Your task to perform on an android device: open app "DuckDuckGo Privacy Browser" (install if not already installed) and go to login screen Image 0: 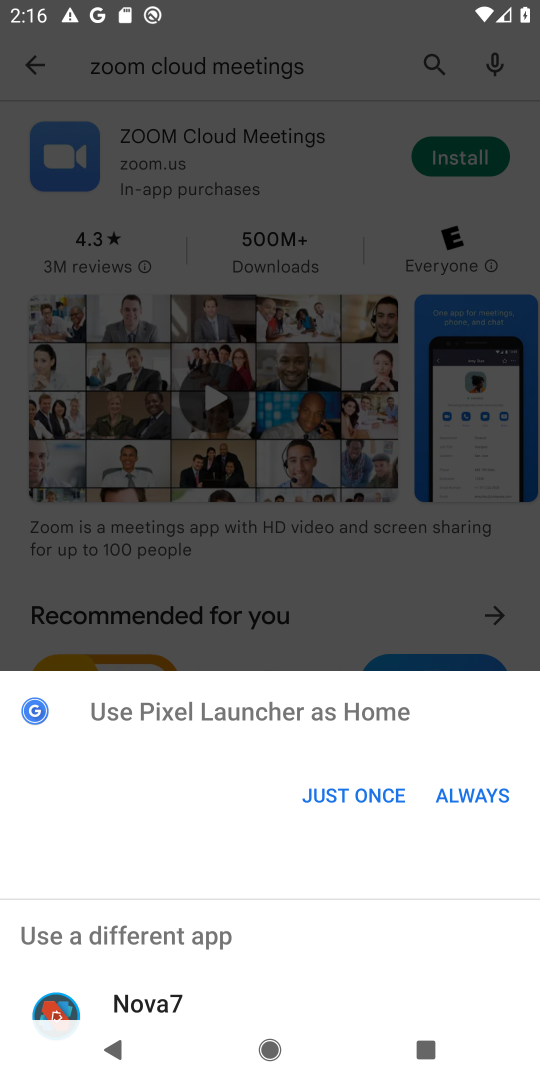
Step 0: press home button
Your task to perform on an android device: open app "DuckDuckGo Privacy Browser" (install if not already installed) and go to login screen Image 1: 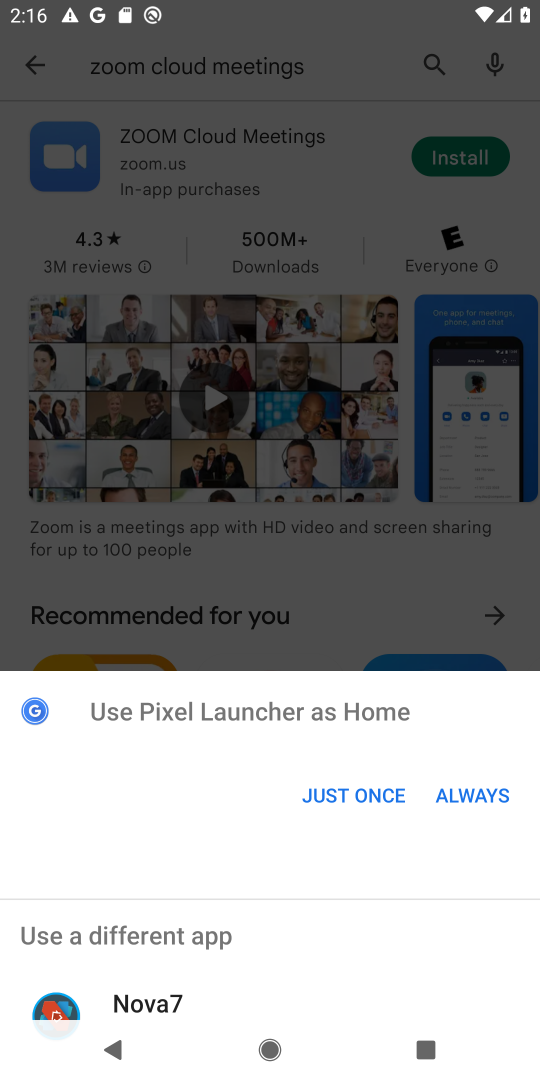
Step 1: click (323, 782)
Your task to perform on an android device: open app "DuckDuckGo Privacy Browser" (install if not already installed) and go to login screen Image 2: 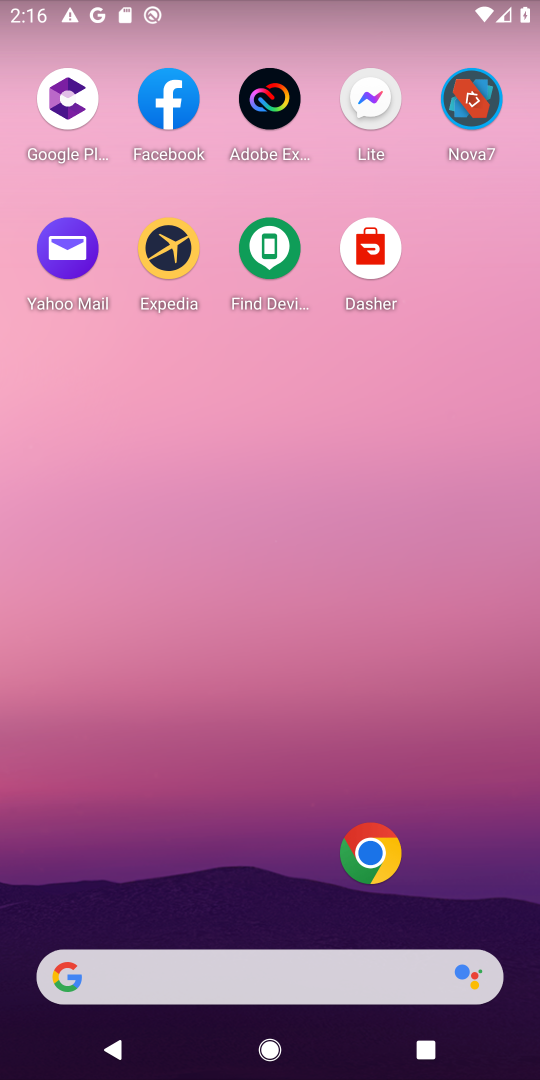
Step 2: drag from (507, 817) to (467, 183)
Your task to perform on an android device: open app "DuckDuckGo Privacy Browser" (install if not already installed) and go to login screen Image 3: 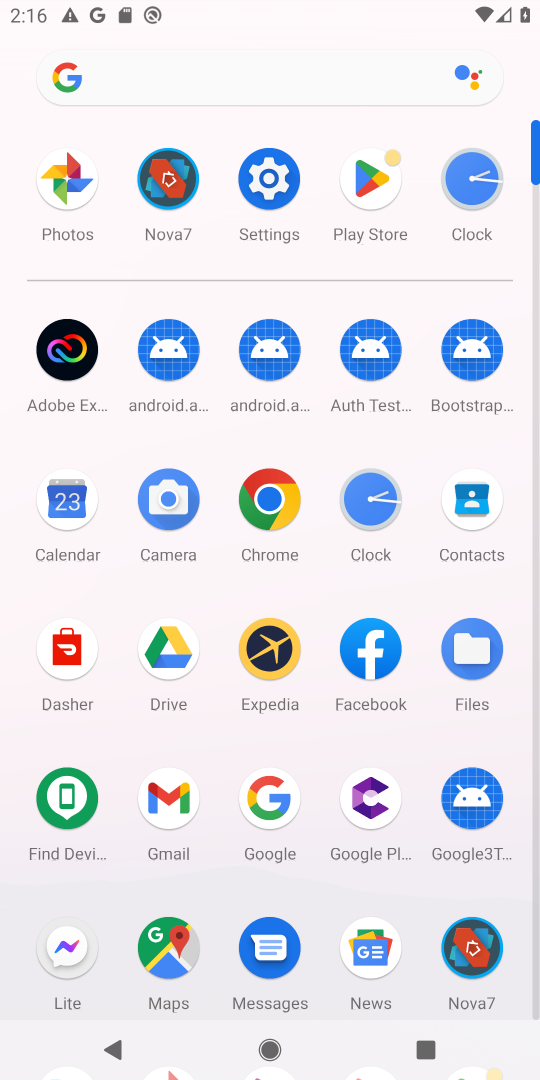
Step 3: click (538, 991)
Your task to perform on an android device: open app "DuckDuckGo Privacy Browser" (install if not already installed) and go to login screen Image 4: 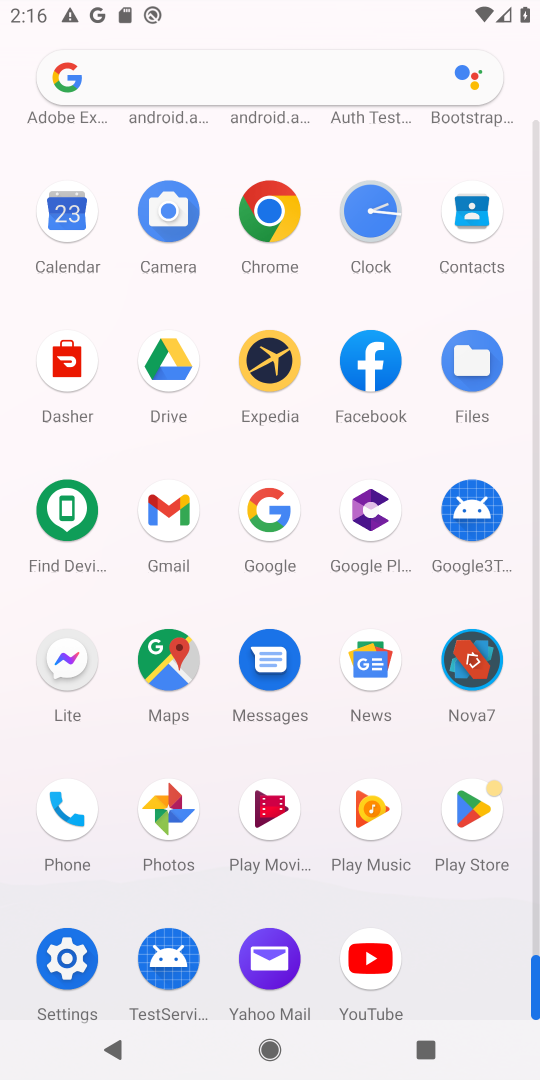
Step 4: click (477, 810)
Your task to perform on an android device: open app "DuckDuckGo Privacy Browser" (install if not already installed) and go to login screen Image 5: 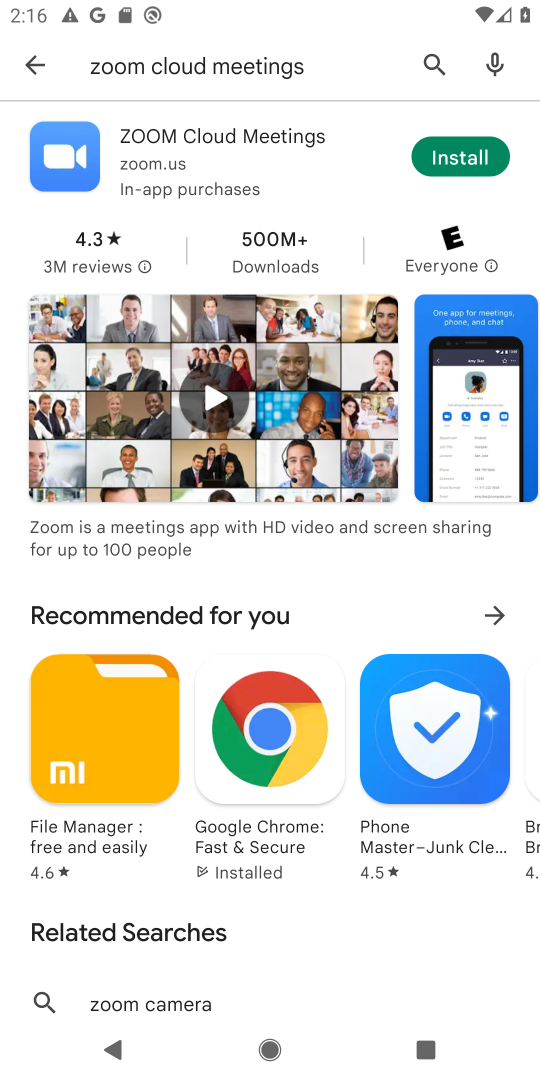
Step 5: click (429, 57)
Your task to perform on an android device: open app "DuckDuckGo Privacy Browser" (install if not already installed) and go to login screen Image 6: 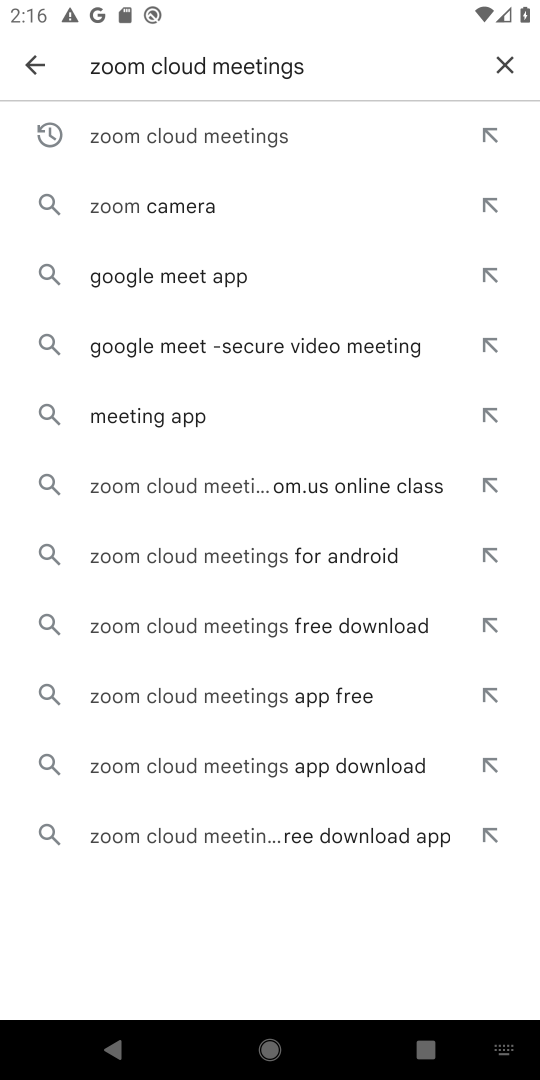
Step 6: click (502, 61)
Your task to perform on an android device: open app "DuckDuckGo Privacy Browser" (install if not already installed) and go to login screen Image 7: 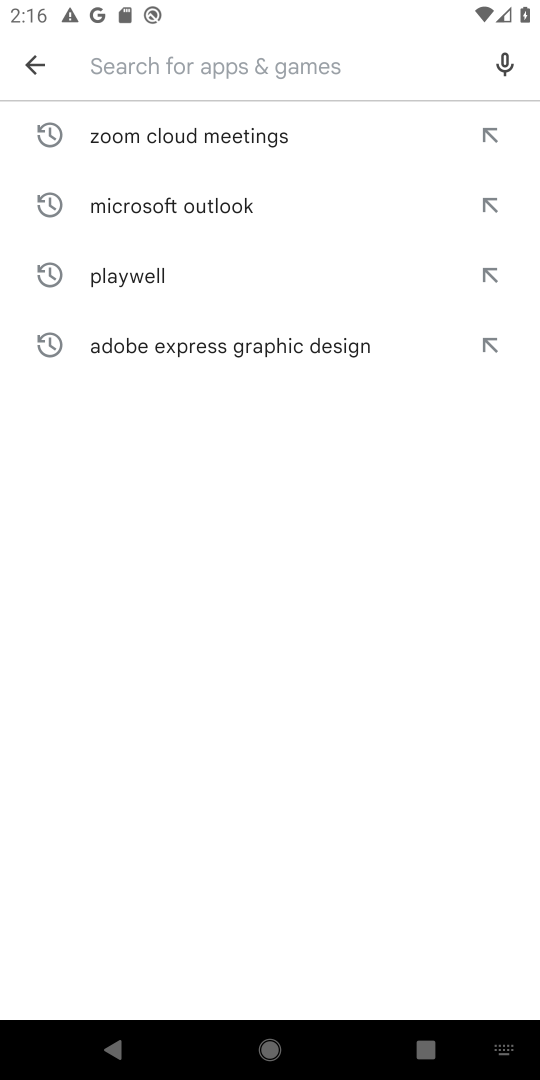
Step 7: type "DuckDuckGo Privacy Browser"
Your task to perform on an android device: open app "DuckDuckGo Privacy Browser" (install if not already installed) and go to login screen Image 8: 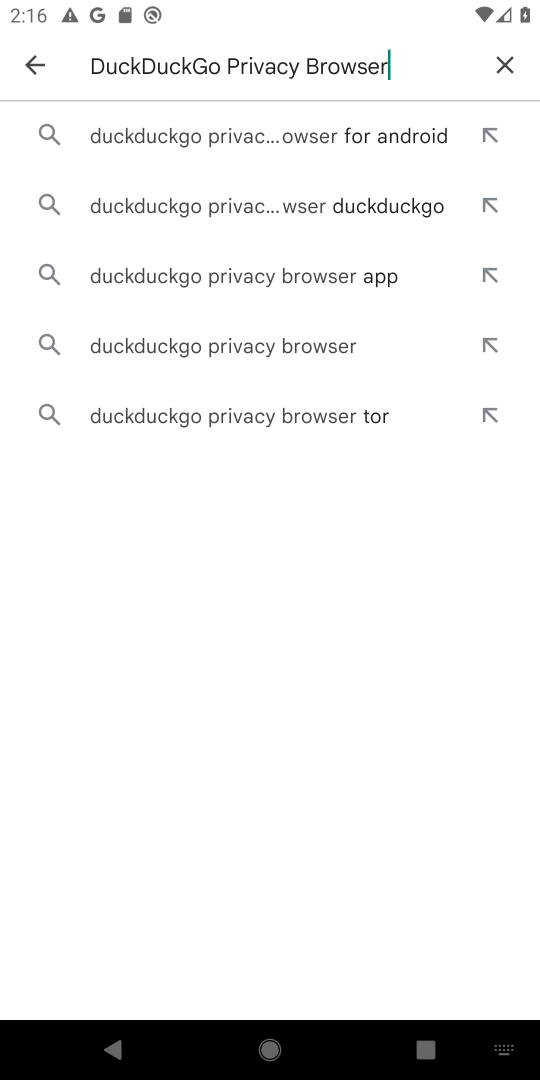
Step 8: click (151, 136)
Your task to perform on an android device: open app "DuckDuckGo Privacy Browser" (install if not already installed) and go to login screen Image 9: 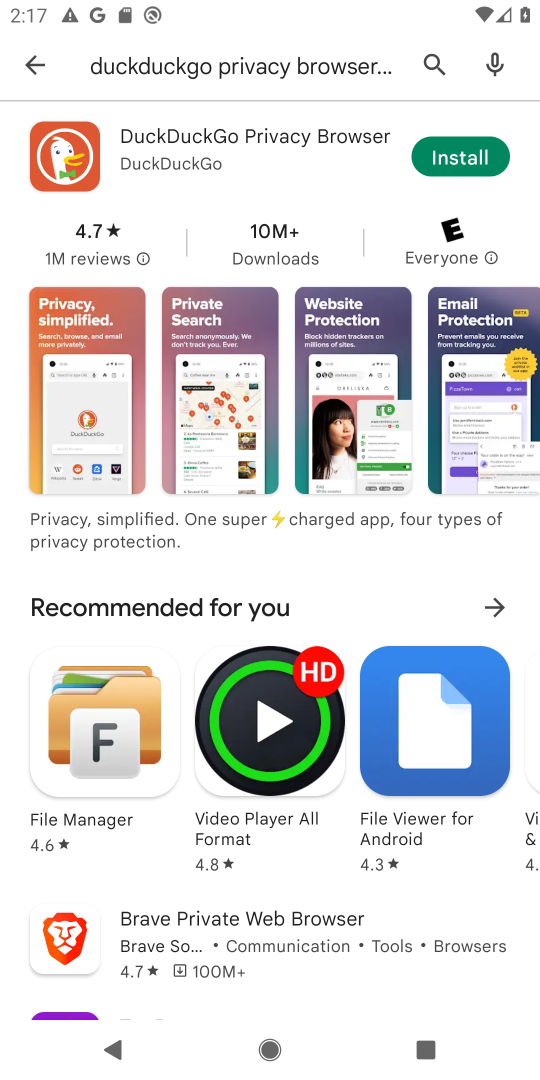
Step 9: click (456, 159)
Your task to perform on an android device: open app "DuckDuckGo Privacy Browser" (install if not already installed) and go to login screen Image 10: 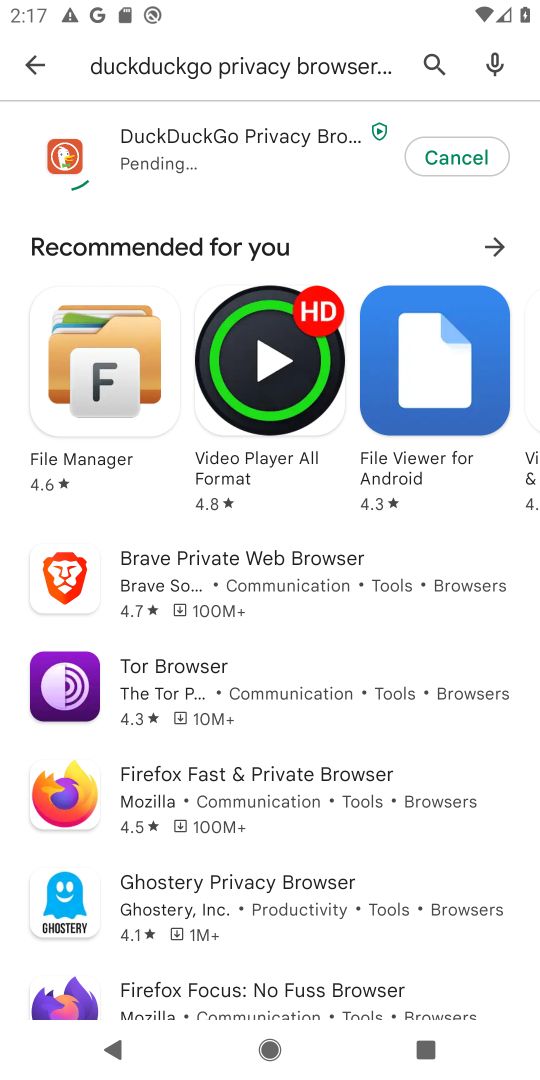
Step 10: click (161, 141)
Your task to perform on an android device: open app "DuckDuckGo Privacy Browser" (install if not already installed) and go to login screen Image 11: 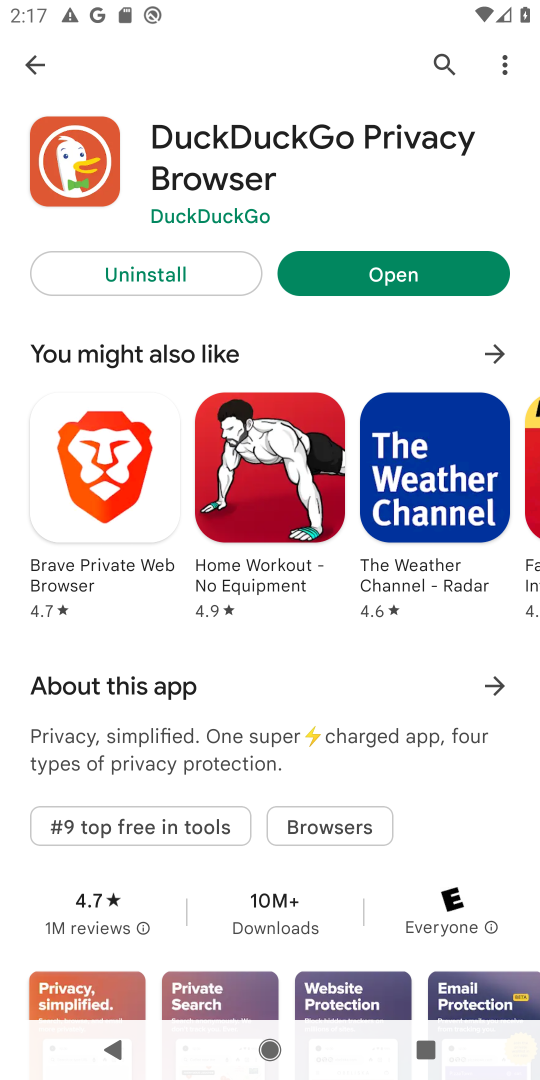
Step 11: click (342, 284)
Your task to perform on an android device: open app "DuckDuckGo Privacy Browser" (install if not already installed) and go to login screen Image 12: 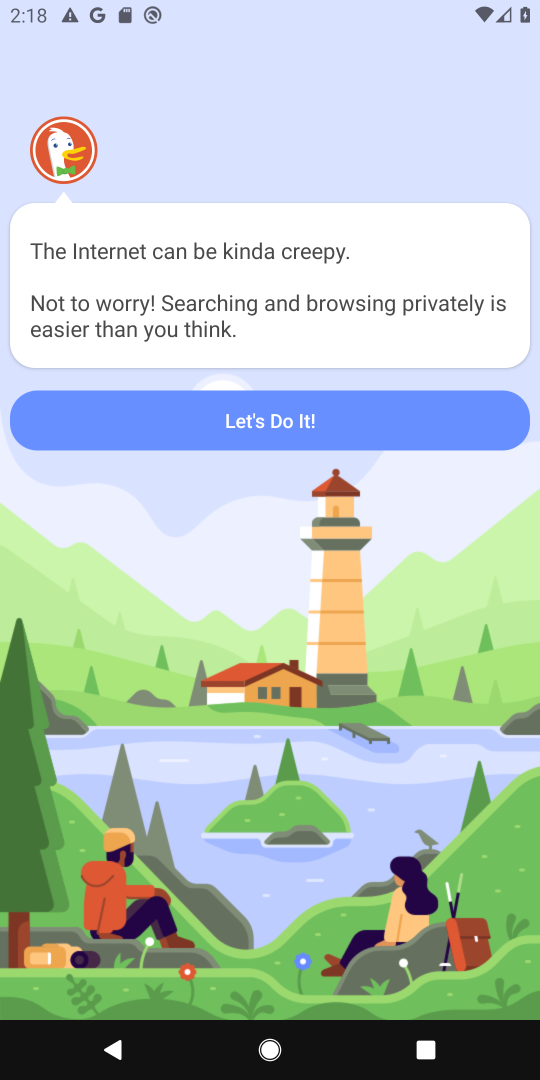
Step 12: task complete